Your task to perform on an android device: Open eBay Image 0: 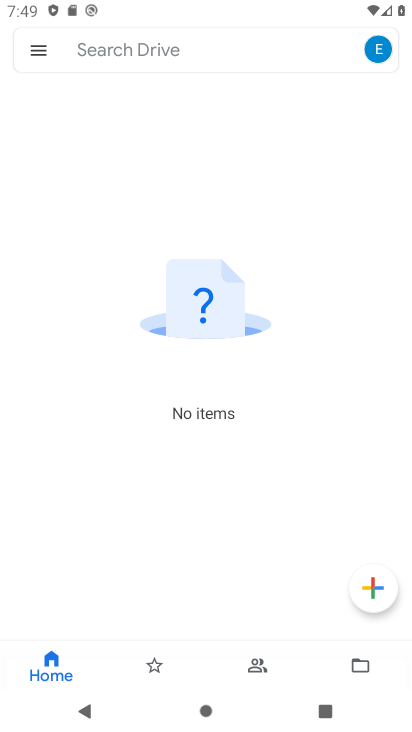
Step 0: press home button
Your task to perform on an android device: Open eBay Image 1: 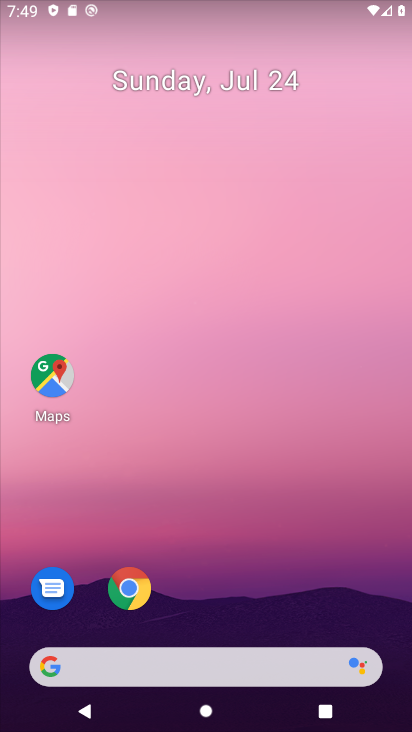
Step 1: click (148, 679)
Your task to perform on an android device: Open eBay Image 2: 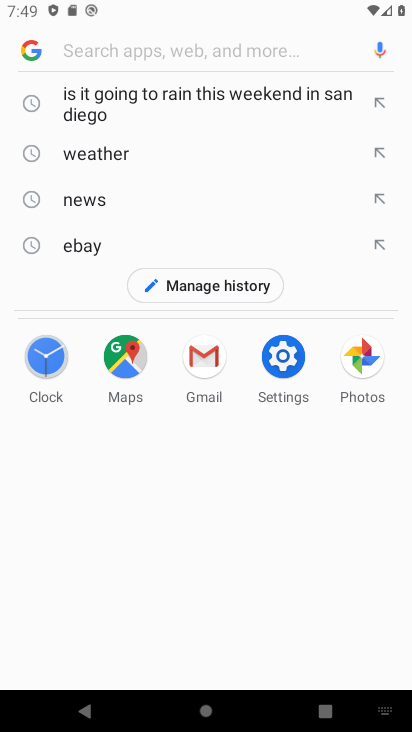
Step 2: click (72, 250)
Your task to perform on an android device: Open eBay Image 3: 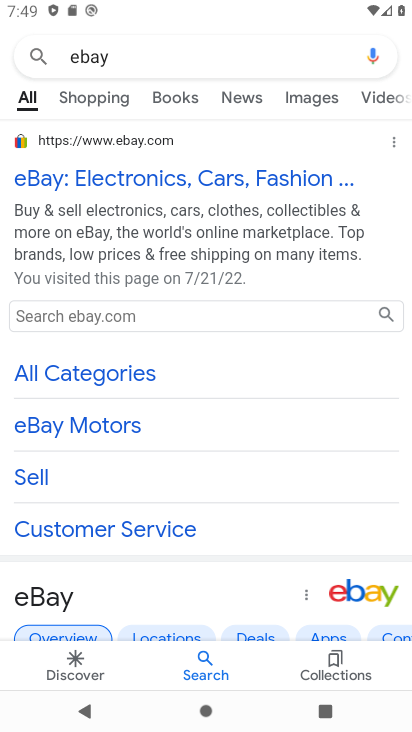
Step 3: click (136, 90)
Your task to perform on an android device: Open eBay Image 4: 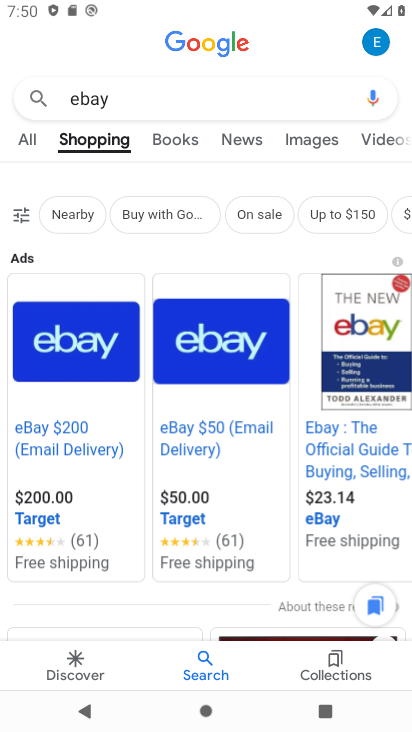
Step 4: click (30, 134)
Your task to perform on an android device: Open eBay Image 5: 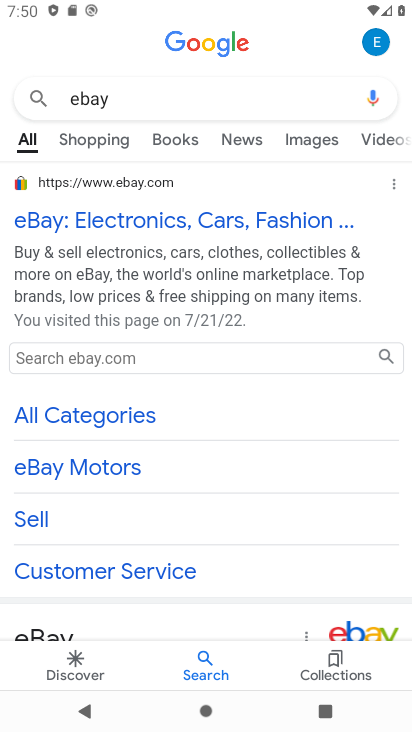
Step 5: click (84, 186)
Your task to perform on an android device: Open eBay Image 6: 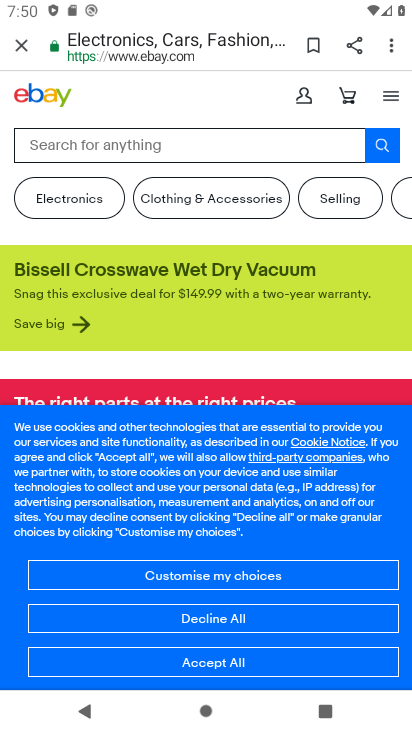
Step 6: task complete